Your task to perform on an android device: allow notifications from all sites in the chrome app Image 0: 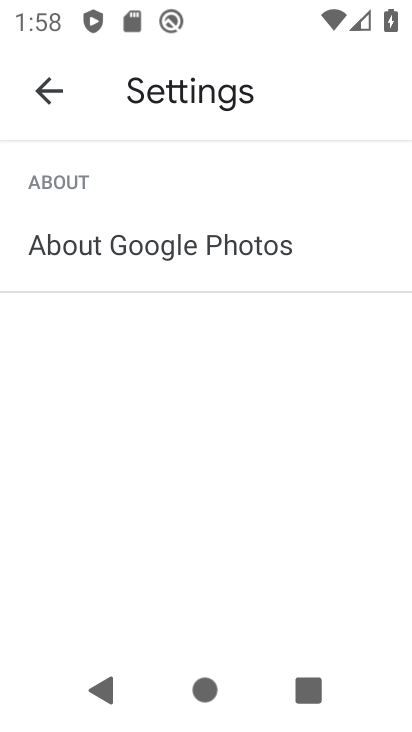
Step 0: drag from (358, 498) to (139, 78)
Your task to perform on an android device: allow notifications from all sites in the chrome app Image 1: 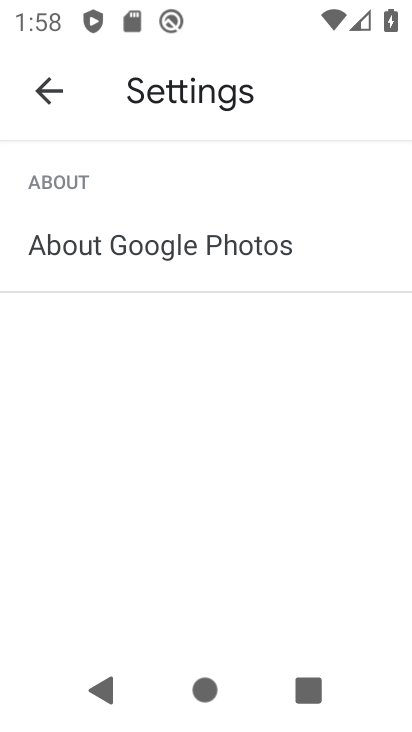
Step 1: click (40, 89)
Your task to perform on an android device: allow notifications from all sites in the chrome app Image 2: 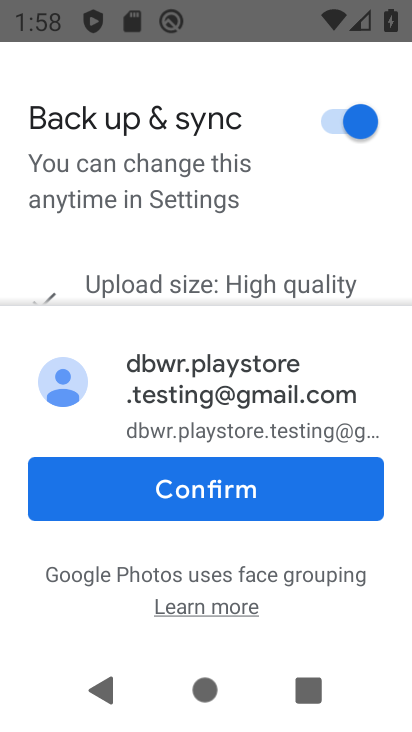
Step 2: press home button
Your task to perform on an android device: allow notifications from all sites in the chrome app Image 3: 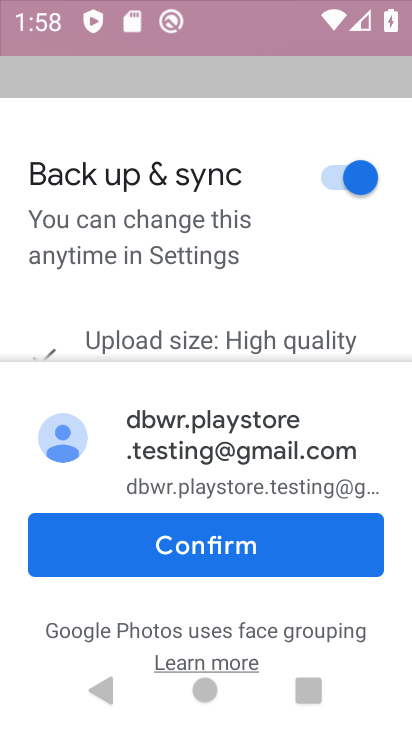
Step 3: press home button
Your task to perform on an android device: allow notifications from all sites in the chrome app Image 4: 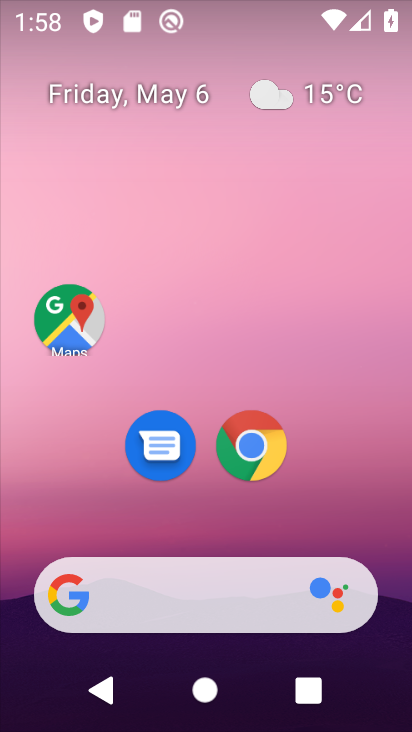
Step 4: drag from (319, 471) to (199, 8)
Your task to perform on an android device: allow notifications from all sites in the chrome app Image 5: 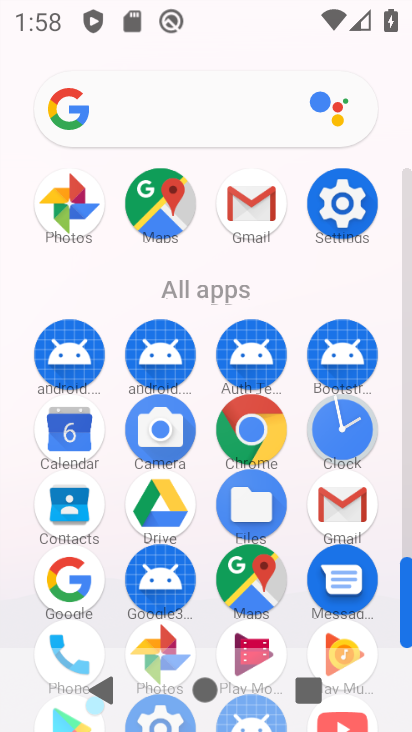
Step 5: click (261, 419)
Your task to perform on an android device: allow notifications from all sites in the chrome app Image 6: 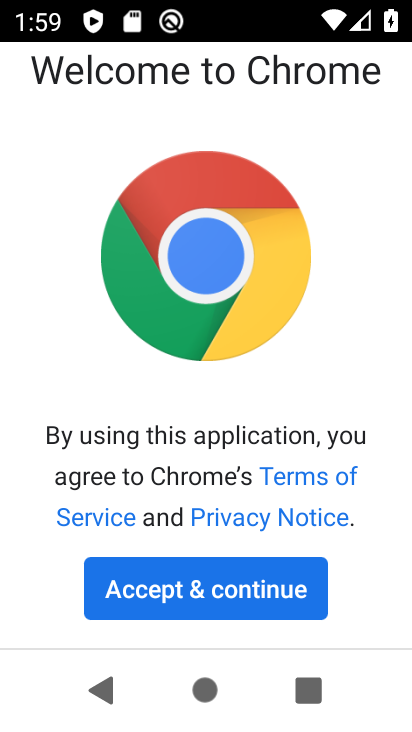
Step 6: click (210, 584)
Your task to perform on an android device: allow notifications from all sites in the chrome app Image 7: 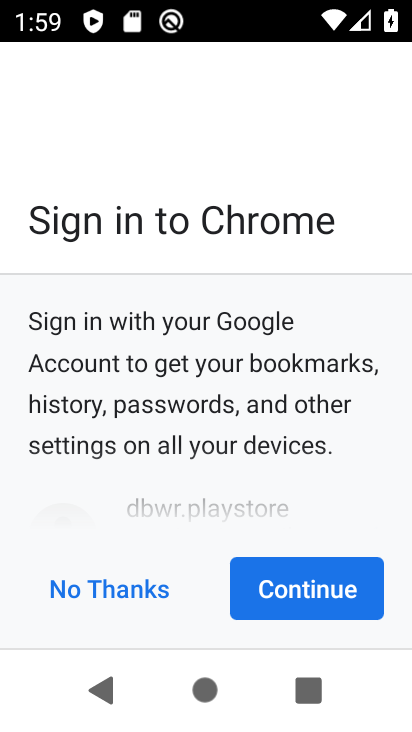
Step 7: click (280, 592)
Your task to perform on an android device: allow notifications from all sites in the chrome app Image 8: 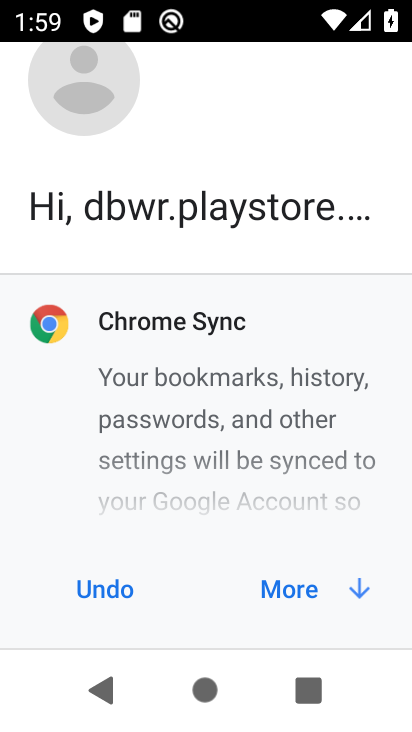
Step 8: click (281, 590)
Your task to perform on an android device: allow notifications from all sites in the chrome app Image 9: 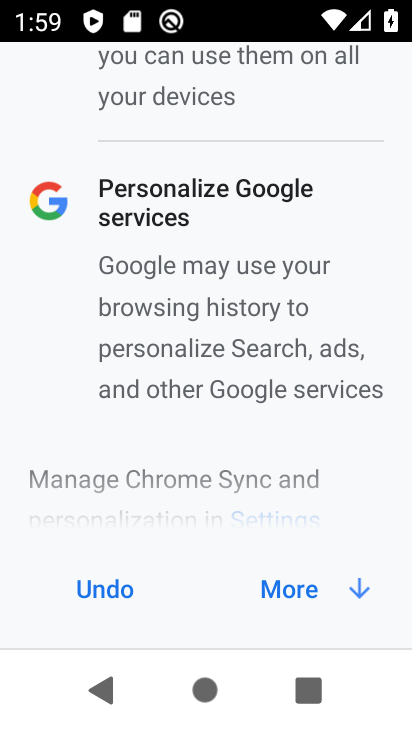
Step 9: click (313, 578)
Your task to perform on an android device: allow notifications from all sites in the chrome app Image 10: 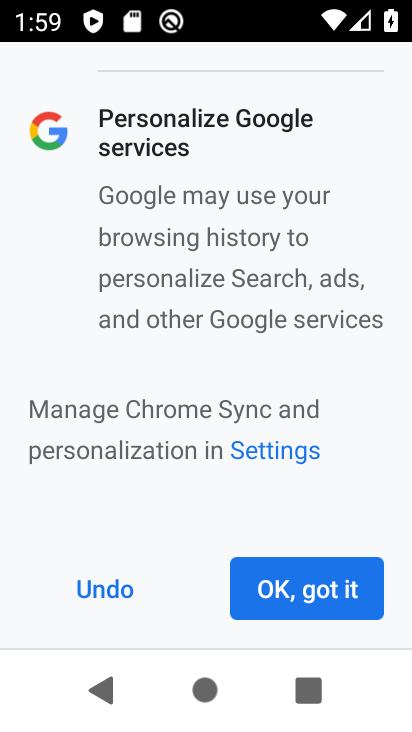
Step 10: click (324, 585)
Your task to perform on an android device: allow notifications from all sites in the chrome app Image 11: 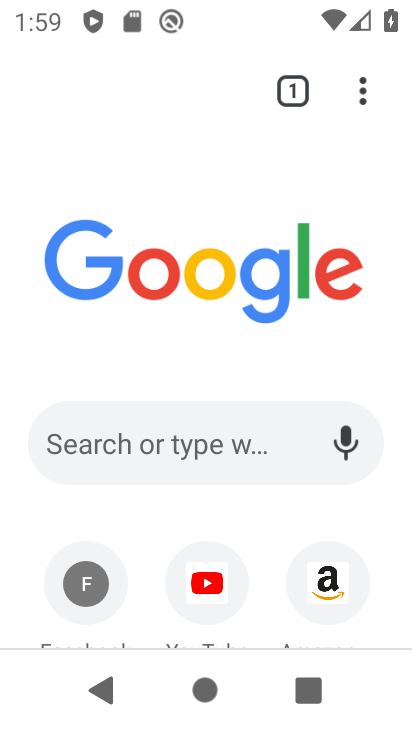
Step 11: drag from (360, 95) to (196, 446)
Your task to perform on an android device: allow notifications from all sites in the chrome app Image 12: 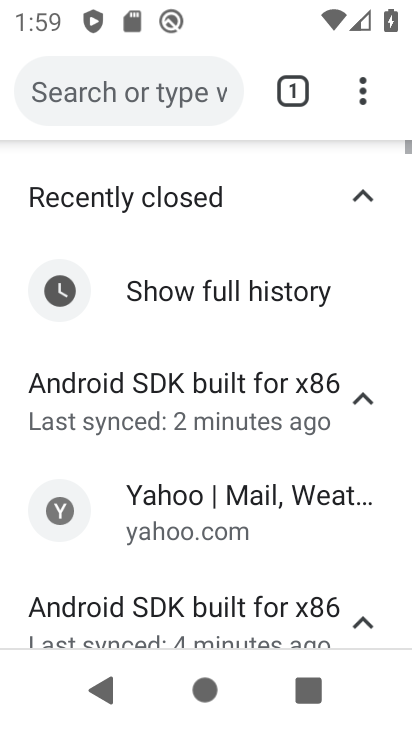
Step 12: click (361, 90)
Your task to perform on an android device: allow notifications from all sites in the chrome app Image 13: 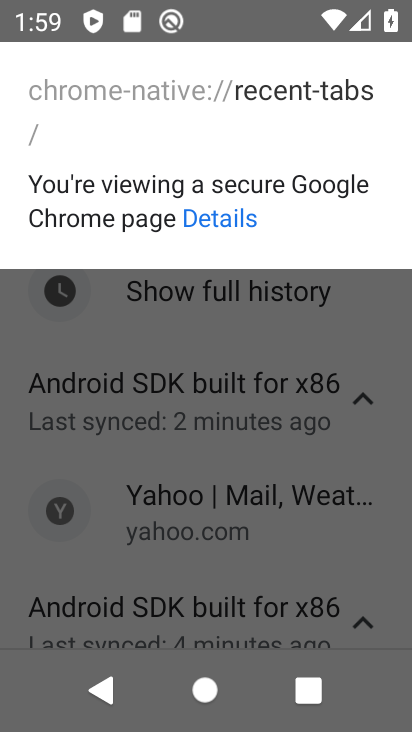
Step 13: click (343, 343)
Your task to perform on an android device: allow notifications from all sites in the chrome app Image 14: 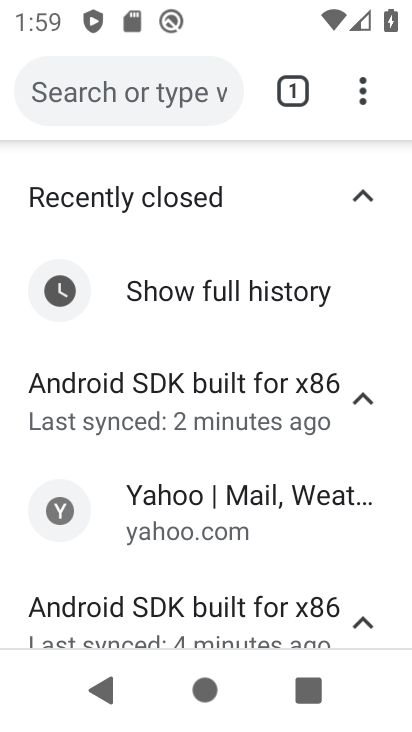
Step 14: drag from (355, 94) to (107, 470)
Your task to perform on an android device: allow notifications from all sites in the chrome app Image 15: 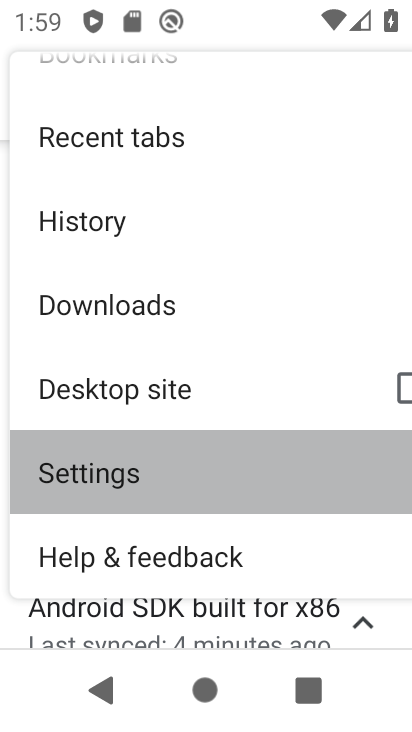
Step 15: click (107, 470)
Your task to perform on an android device: allow notifications from all sites in the chrome app Image 16: 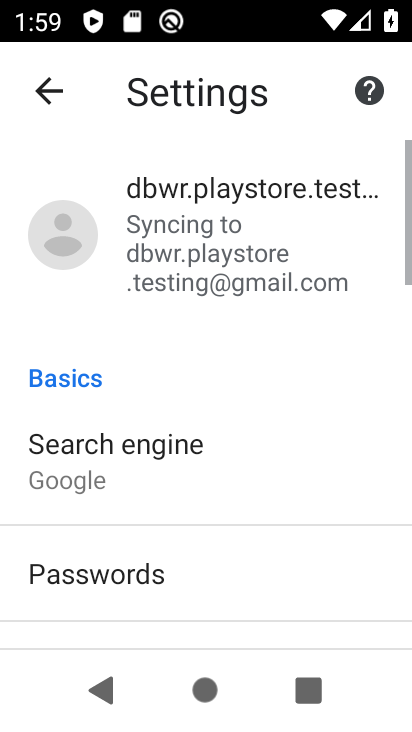
Step 16: drag from (182, 582) to (131, 106)
Your task to perform on an android device: allow notifications from all sites in the chrome app Image 17: 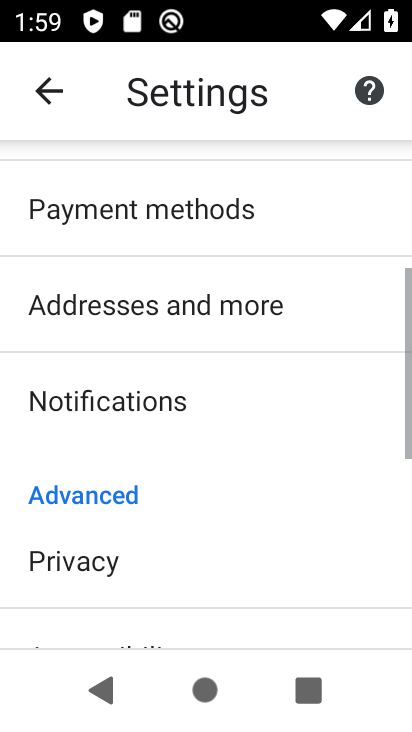
Step 17: drag from (200, 489) to (177, 135)
Your task to perform on an android device: allow notifications from all sites in the chrome app Image 18: 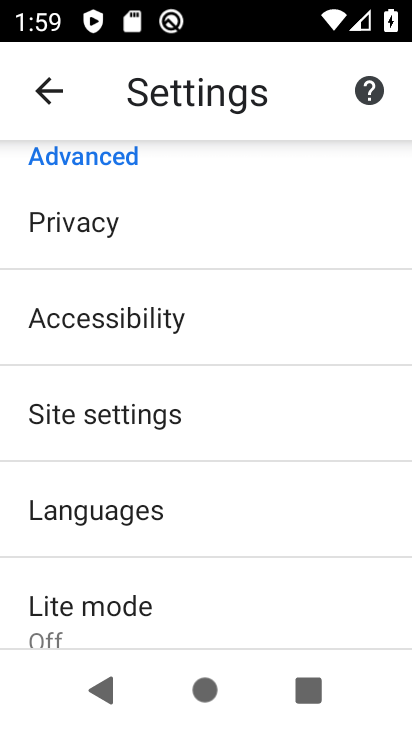
Step 18: drag from (72, 239) to (117, 535)
Your task to perform on an android device: allow notifications from all sites in the chrome app Image 19: 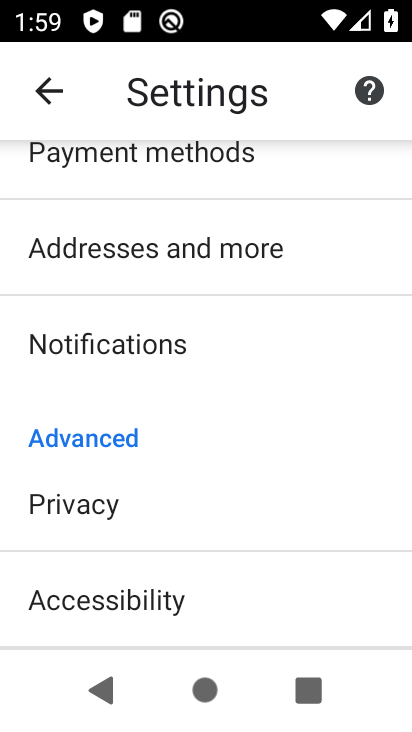
Step 19: click (127, 347)
Your task to perform on an android device: allow notifications from all sites in the chrome app Image 20: 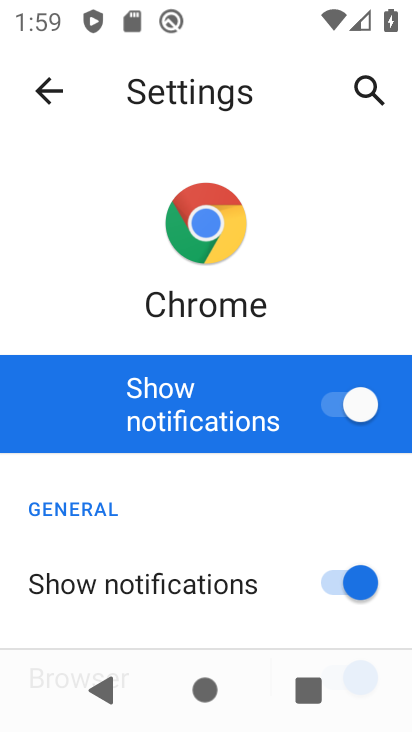
Step 20: task complete